Your task to perform on an android device: Open Google Chrome and open the bookmarks view Image 0: 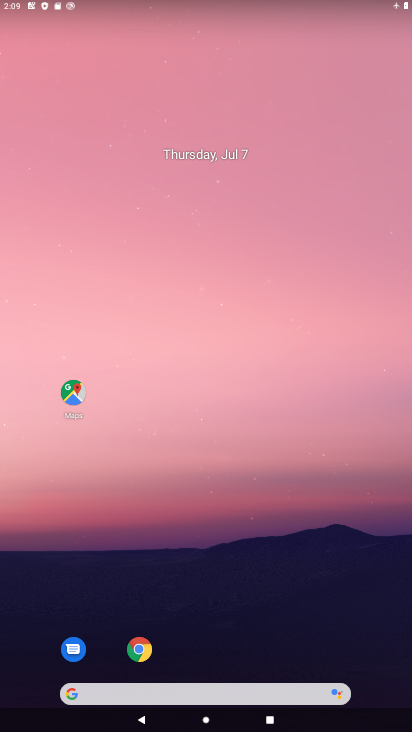
Step 0: drag from (303, 681) to (260, 21)
Your task to perform on an android device: Open Google Chrome and open the bookmarks view Image 1: 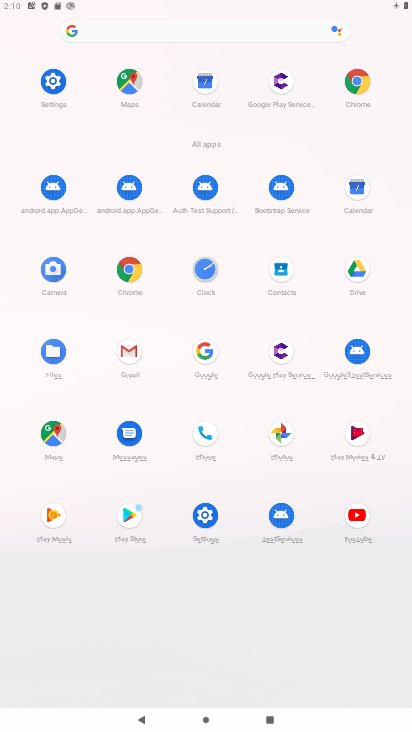
Step 1: click (123, 271)
Your task to perform on an android device: Open Google Chrome and open the bookmarks view Image 2: 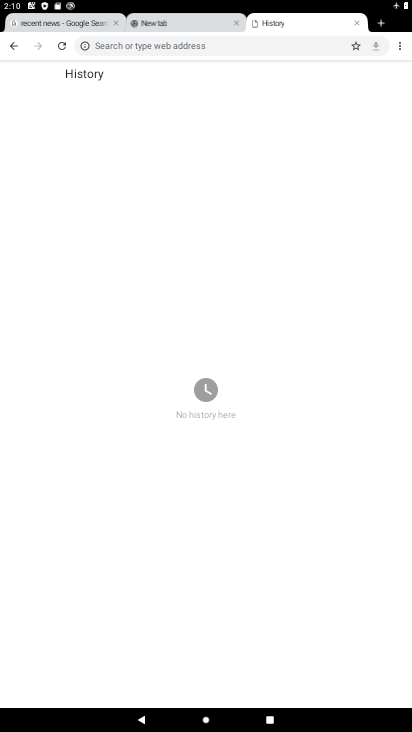
Step 2: task complete